Your task to perform on an android device: manage bookmarks in the chrome app Image 0: 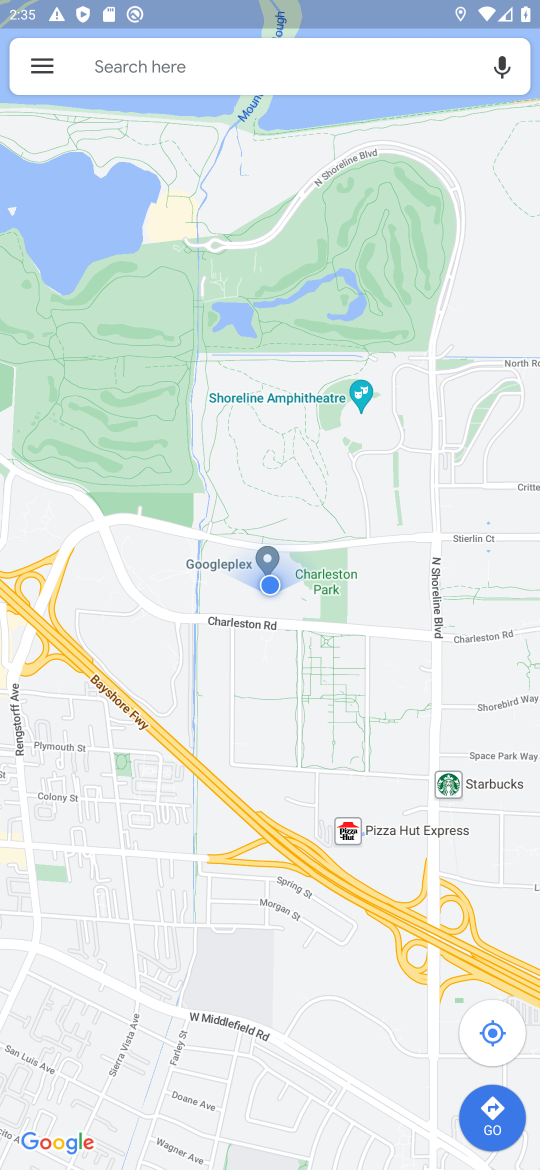
Step 0: press home button
Your task to perform on an android device: manage bookmarks in the chrome app Image 1: 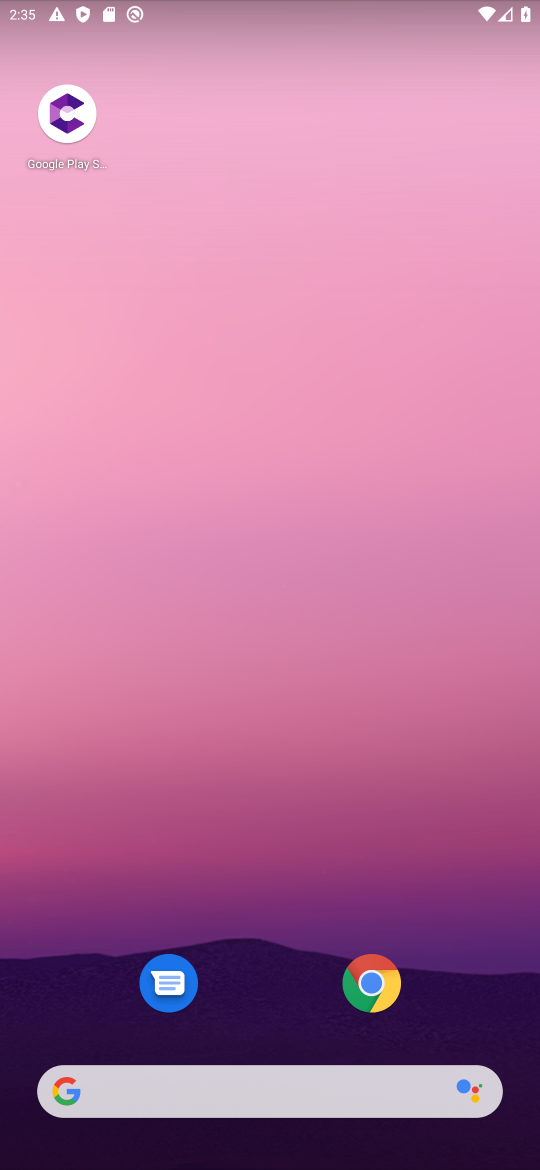
Step 1: click (377, 970)
Your task to perform on an android device: manage bookmarks in the chrome app Image 2: 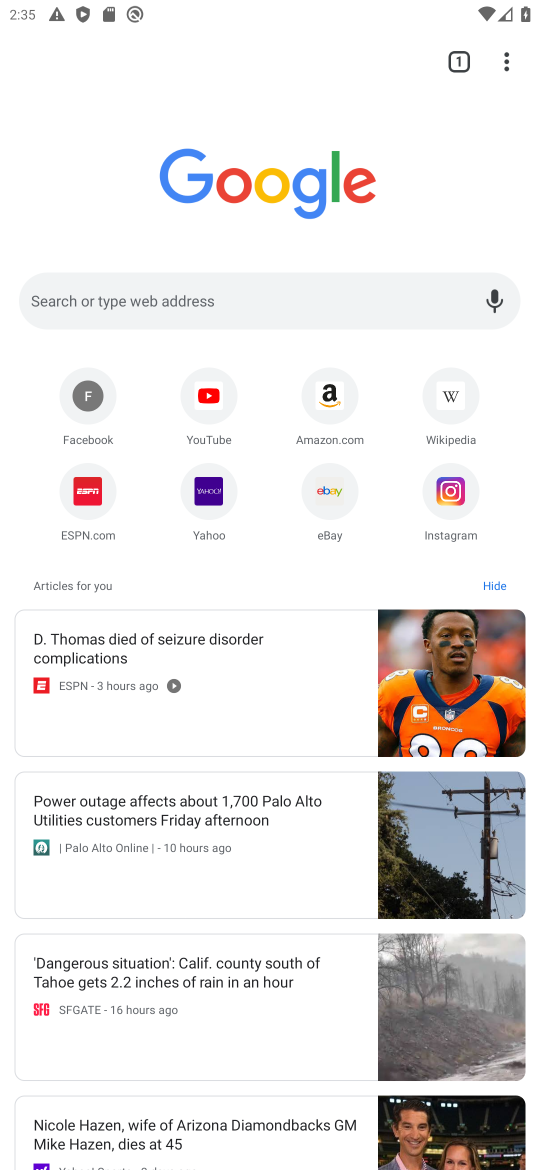
Step 2: drag from (505, 54) to (319, 241)
Your task to perform on an android device: manage bookmarks in the chrome app Image 3: 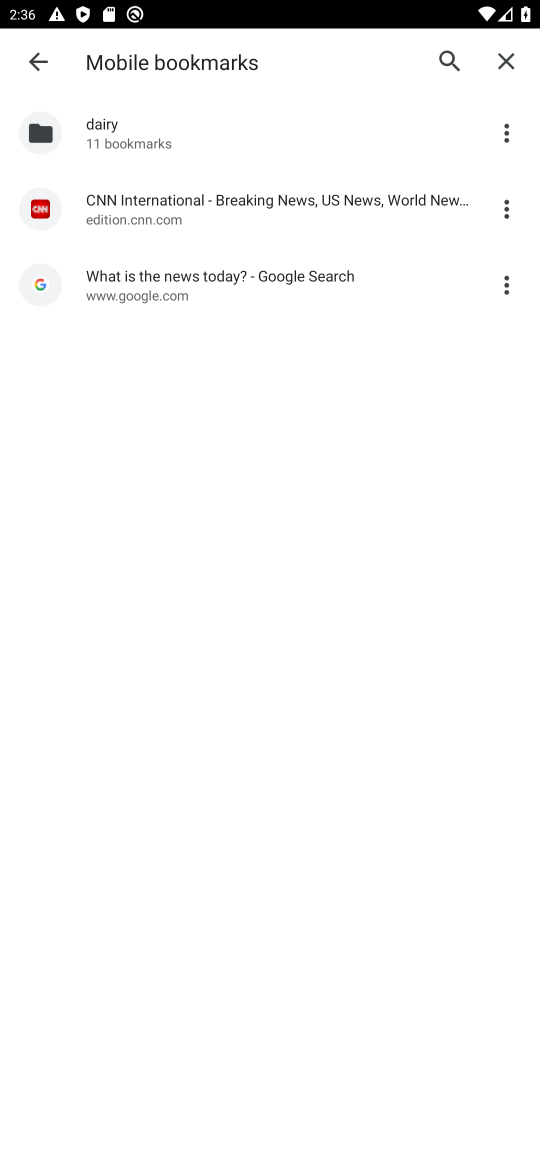
Step 3: click (508, 277)
Your task to perform on an android device: manage bookmarks in the chrome app Image 4: 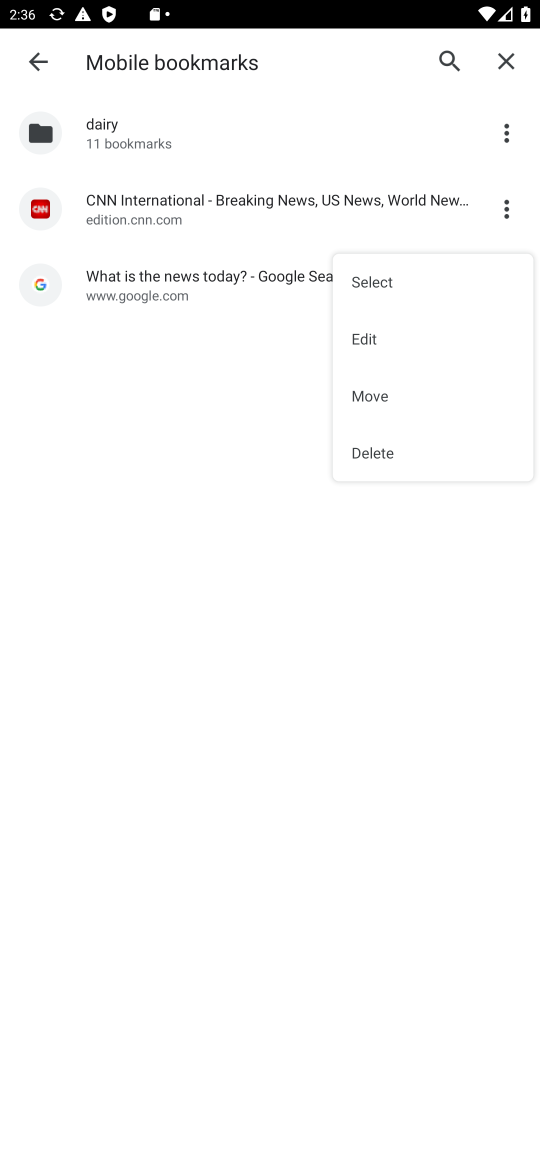
Step 4: click (385, 440)
Your task to perform on an android device: manage bookmarks in the chrome app Image 5: 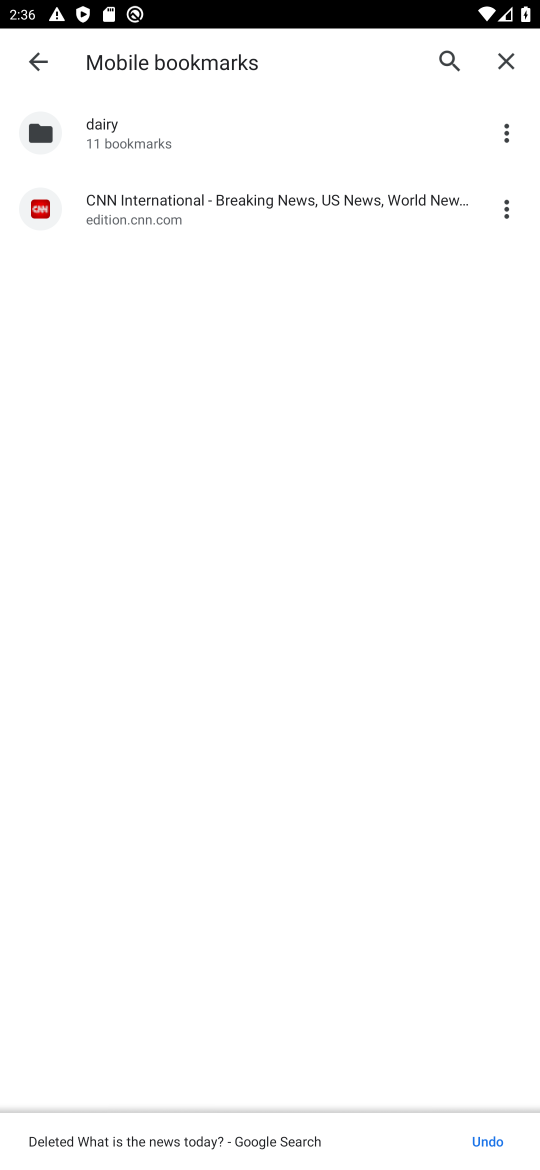
Step 5: task complete